Your task to perform on an android device: Go to Android settings Image 0: 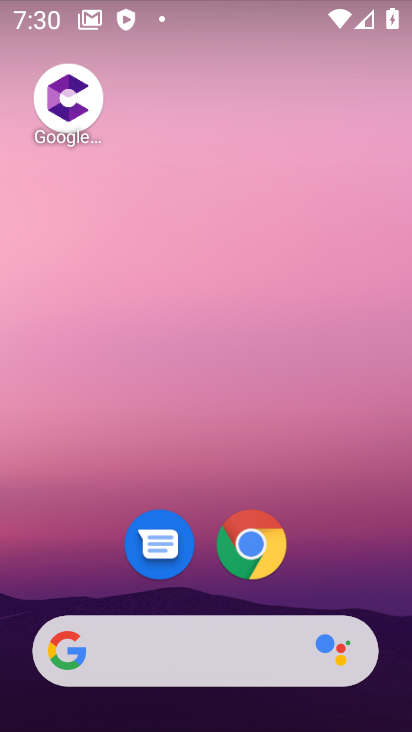
Step 0: drag from (318, 581) to (208, 101)
Your task to perform on an android device: Go to Android settings Image 1: 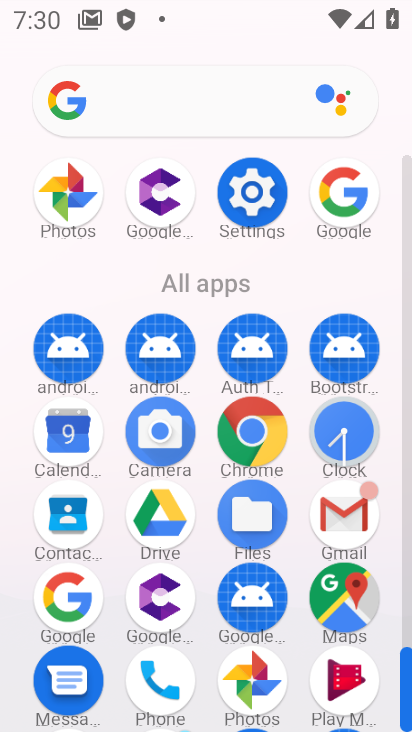
Step 1: click (255, 192)
Your task to perform on an android device: Go to Android settings Image 2: 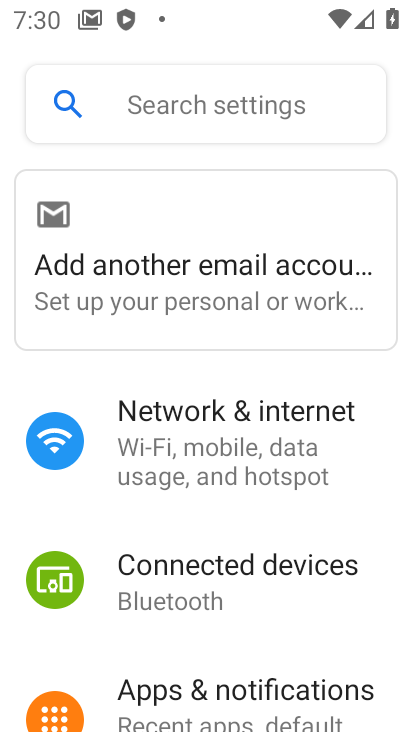
Step 2: task complete